Your task to perform on an android device: Go to Amazon Image 0: 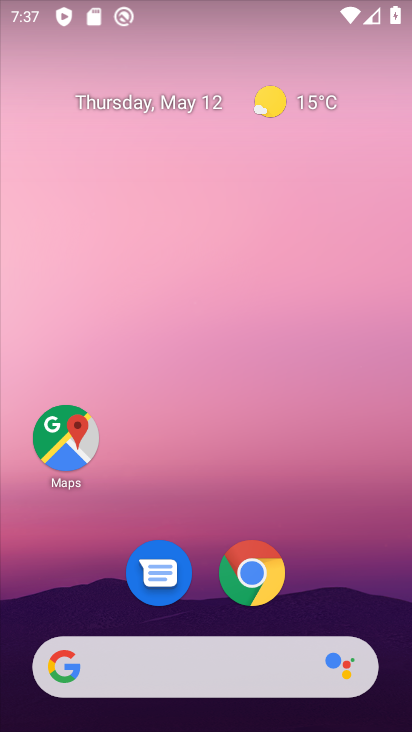
Step 0: click (260, 578)
Your task to perform on an android device: Go to Amazon Image 1: 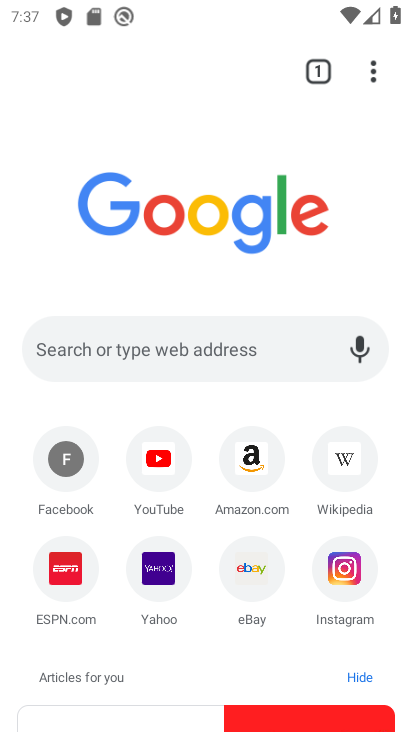
Step 1: click (371, 68)
Your task to perform on an android device: Go to Amazon Image 2: 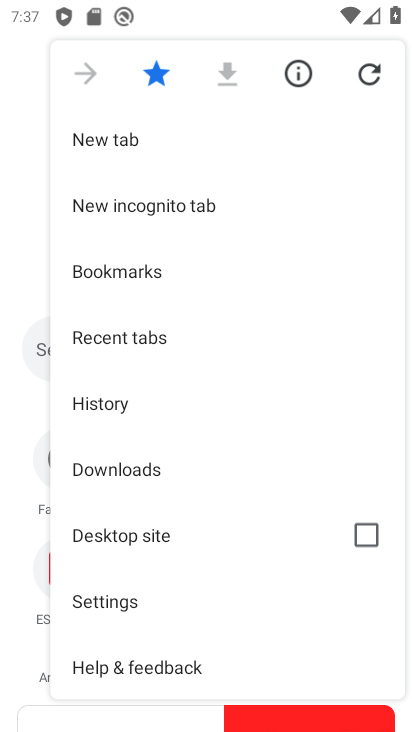
Step 2: click (110, 142)
Your task to perform on an android device: Go to Amazon Image 3: 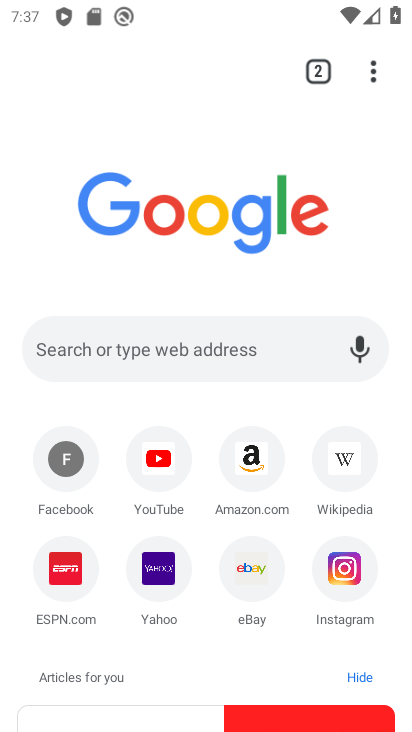
Step 3: click (243, 463)
Your task to perform on an android device: Go to Amazon Image 4: 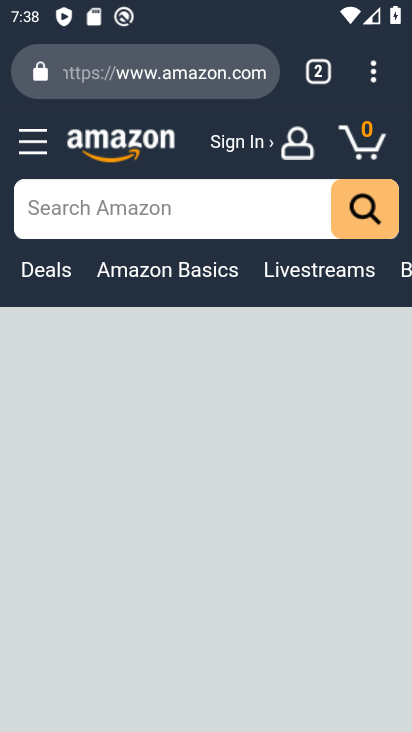
Step 4: task complete